Your task to perform on an android device: turn notification dots off Image 0: 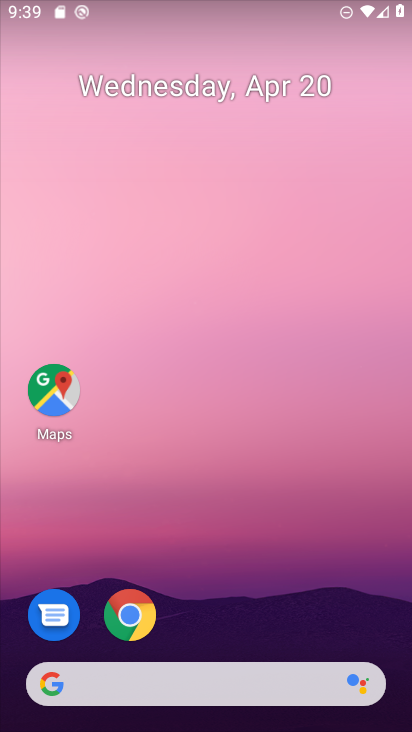
Step 0: press home button
Your task to perform on an android device: turn notification dots off Image 1: 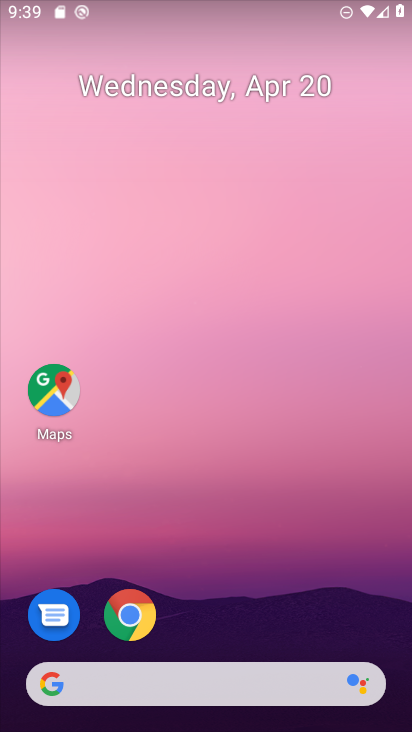
Step 1: drag from (244, 594) to (294, 67)
Your task to perform on an android device: turn notification dots off Image 2: 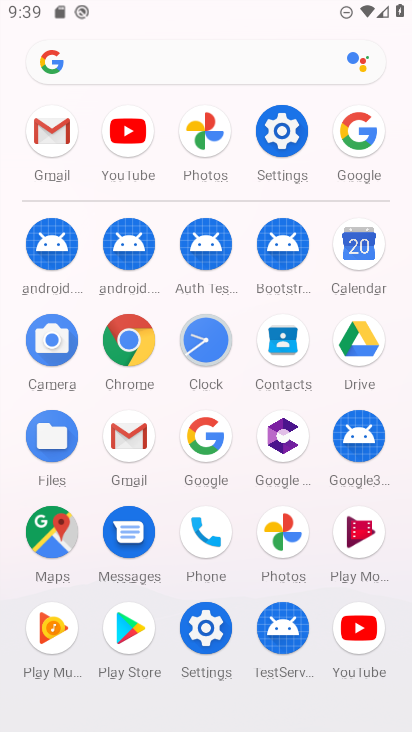
Step 2: click (282, 132)
Your task to perform on an android device: turn notification dots off Image 3: 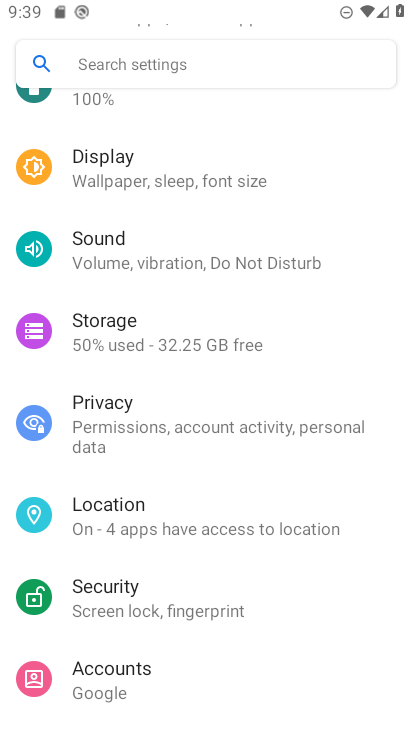
Step 3: drag from (230, 225) to (249, 305)
Your task to perform on an android device: turn notification dots off Image 4: 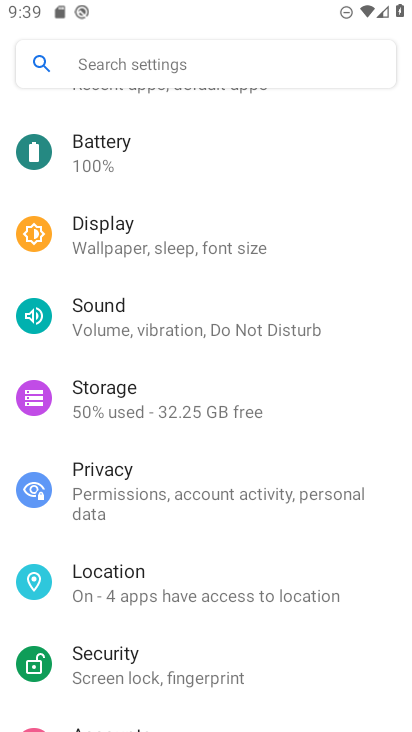
Step 4: drag from (231, 195) to (228, 298)
Your task to perform on an android device: turn notification dots off Image 5: 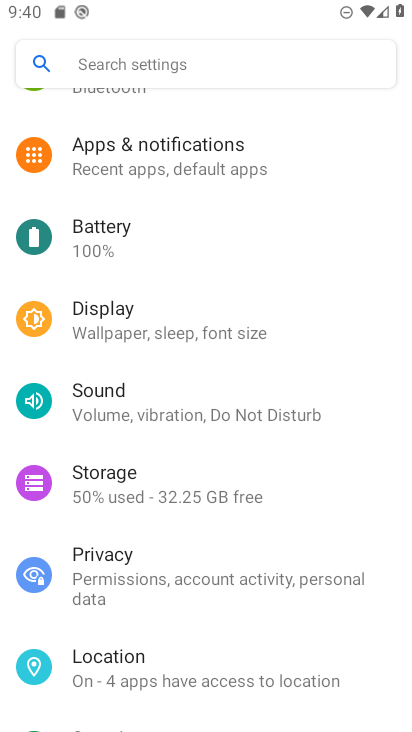
Step 5: click (200, 148)
Your task to perform on an android device: turn notification dots off Image 6: 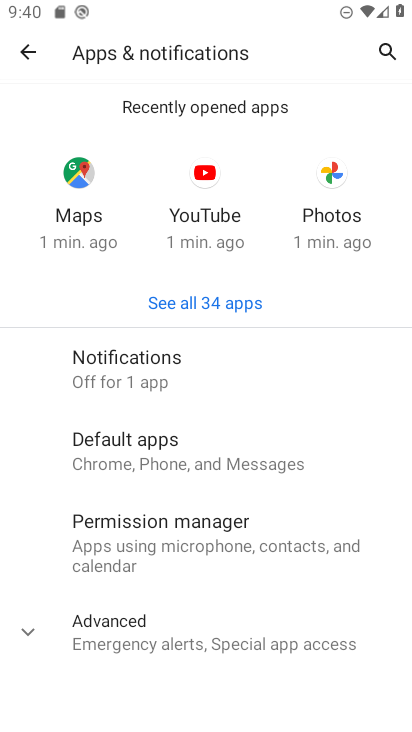
Step 6: click (123, 358)
Your task to perform on an android device: turn notification dots off Image 7: 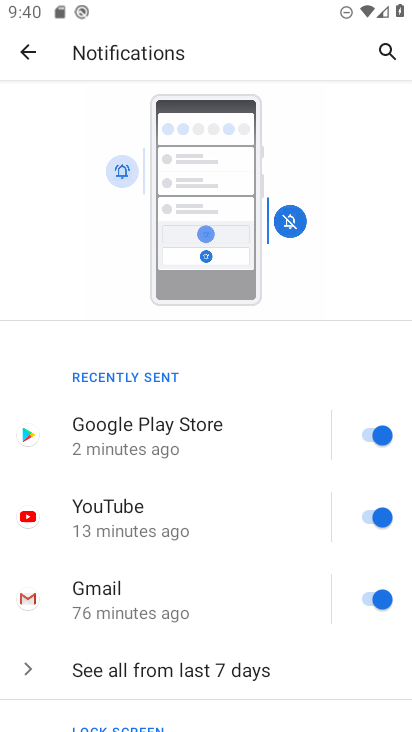
Step 7: drag from (186, 574) to (221, 398)
Your task to perform on an android device: turn notification dots off Image 8: 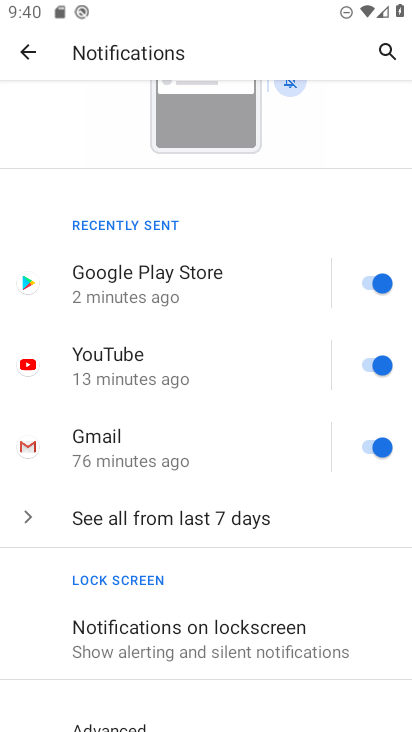
Step 8: drag from (196, 576) to (224, 418)
Your task to perform on an android device: turn notification dots off Image 9: 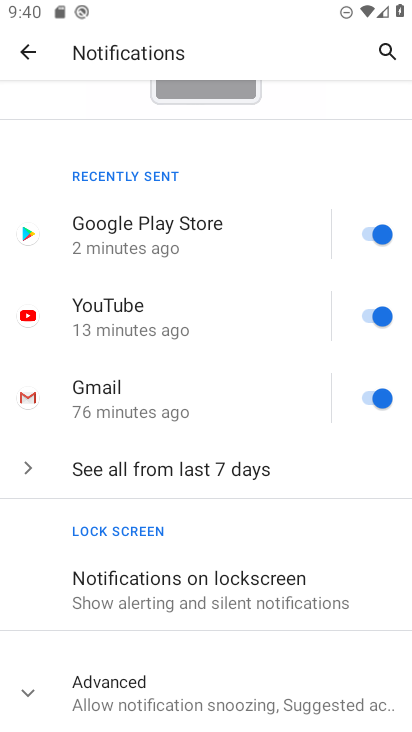
Step 9: click (156, 704)
Your task to perform on an android device: turn notification dots off Image 10: 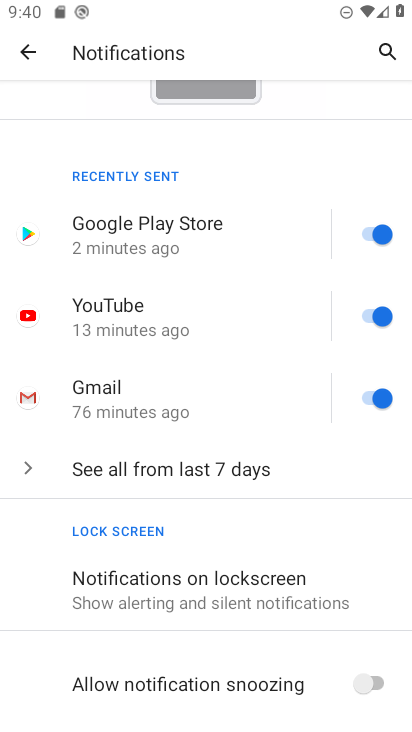
Step 10: task complete